Your task to perform on an android device: Go to eBay Image 0: 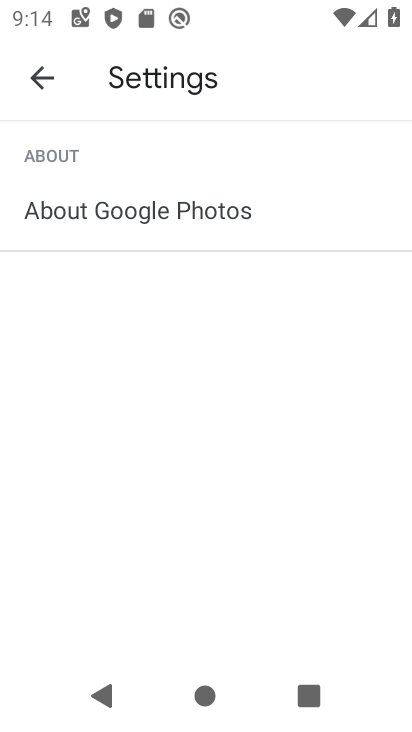
Step 0: press home button
Your task to perform on an android device: Go to eBay Image 1: 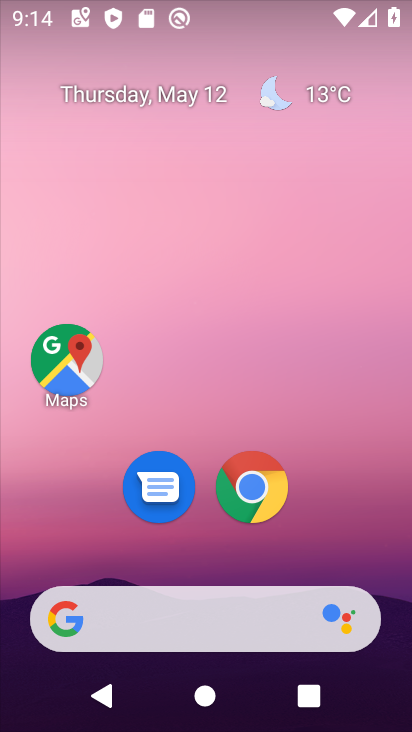
Step 1: click (221, 638)
Your task to perform on an android device: Go to eBay Image 2: 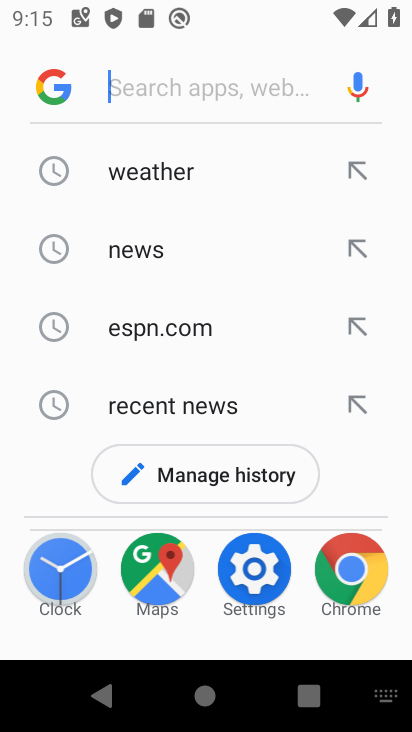
Step 2: type "ebay"
Your task to perform on an android device: Go to eBay Image 3: 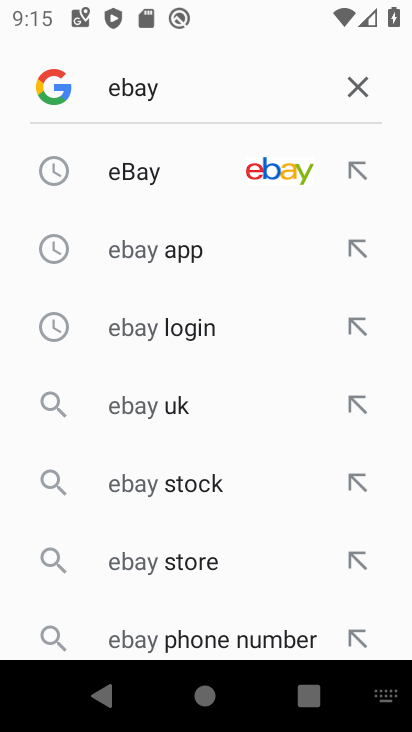
Step 3: click (232, 167)
Your task to perform on an android device: Go to eBay Image 4: 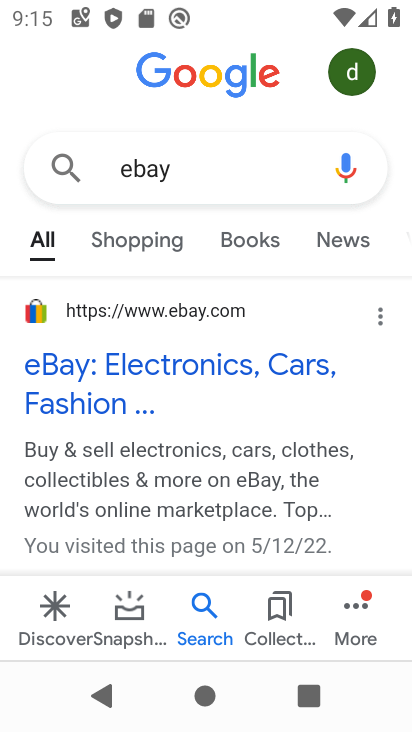
Step 4: task complete